Your task to perform on an android device: When is my next appointment? Image 0: 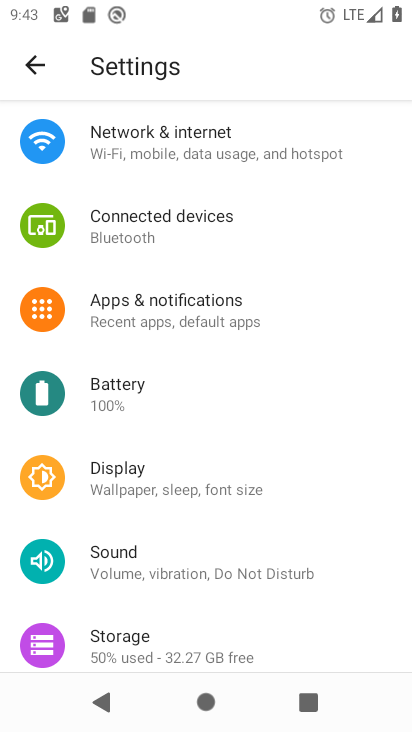
Step 0: press home button
Your task to perform on an android device: When is my next appointment? Image 1: 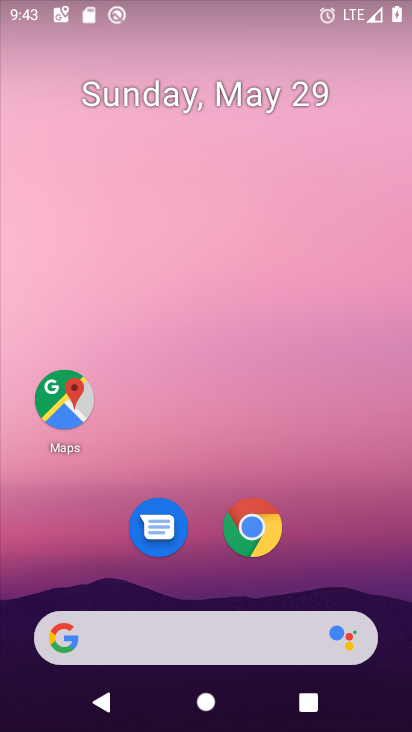
Step 1: drag from (209, 596) to (216, 21)
Your task to perform on an android device: When is my next appointment? Image 2: 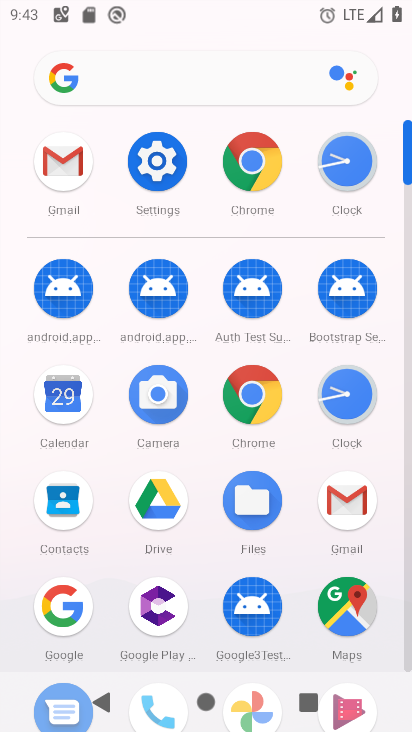
Step 2: click (61, 392)
Your task to perform on an android device: When is my next appointment? Image 3: 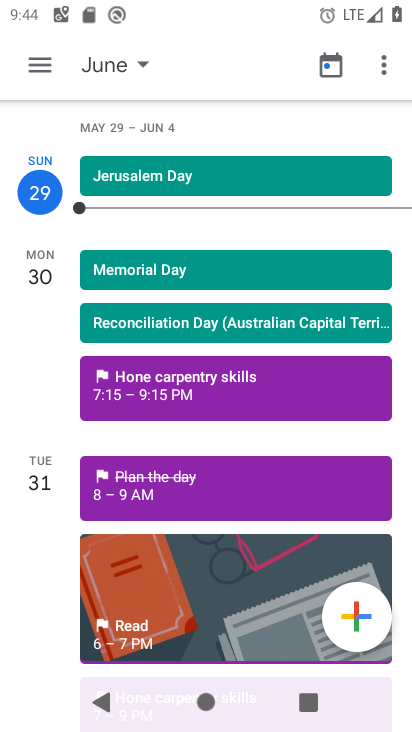
Step 3: task complete